Your task to perform on an android device: Go to calendar. Show me events next week Image 0: 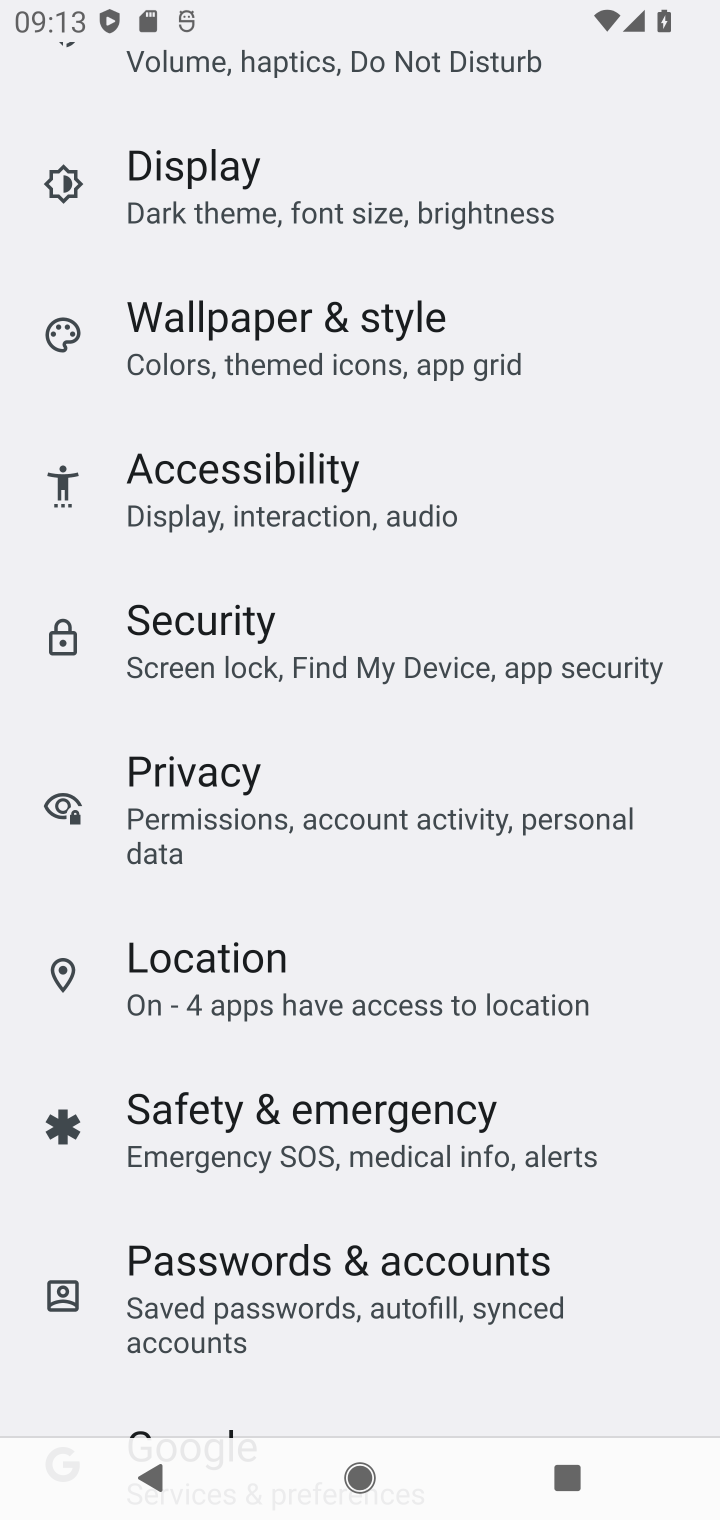
Step 0: press home button
Your task to perform on an android device: Go to calendar. Show me events next week Image 1: 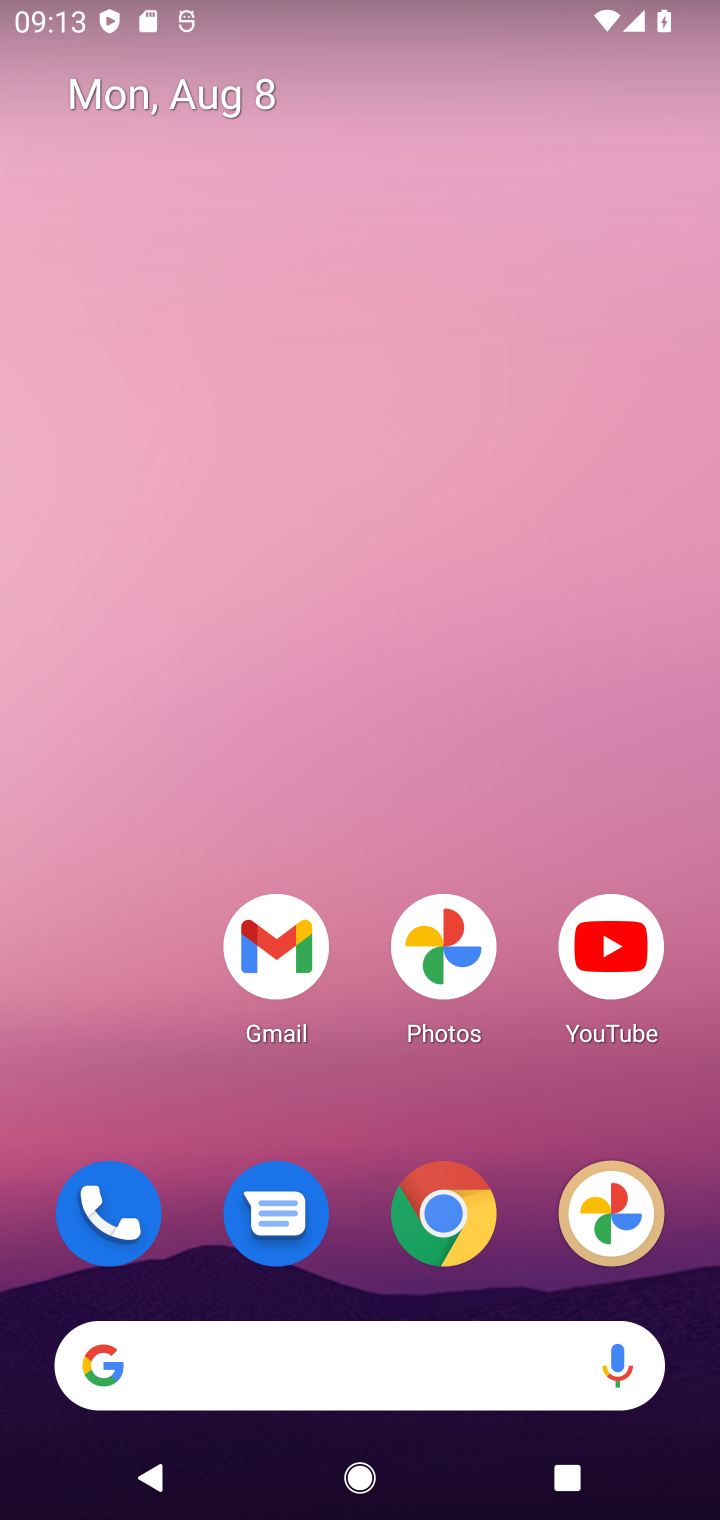
Step 1: drag from (347, 1141) to (456, 258)
Your task to perform on an android device: Go to calendar. Show me events next week Image 2: 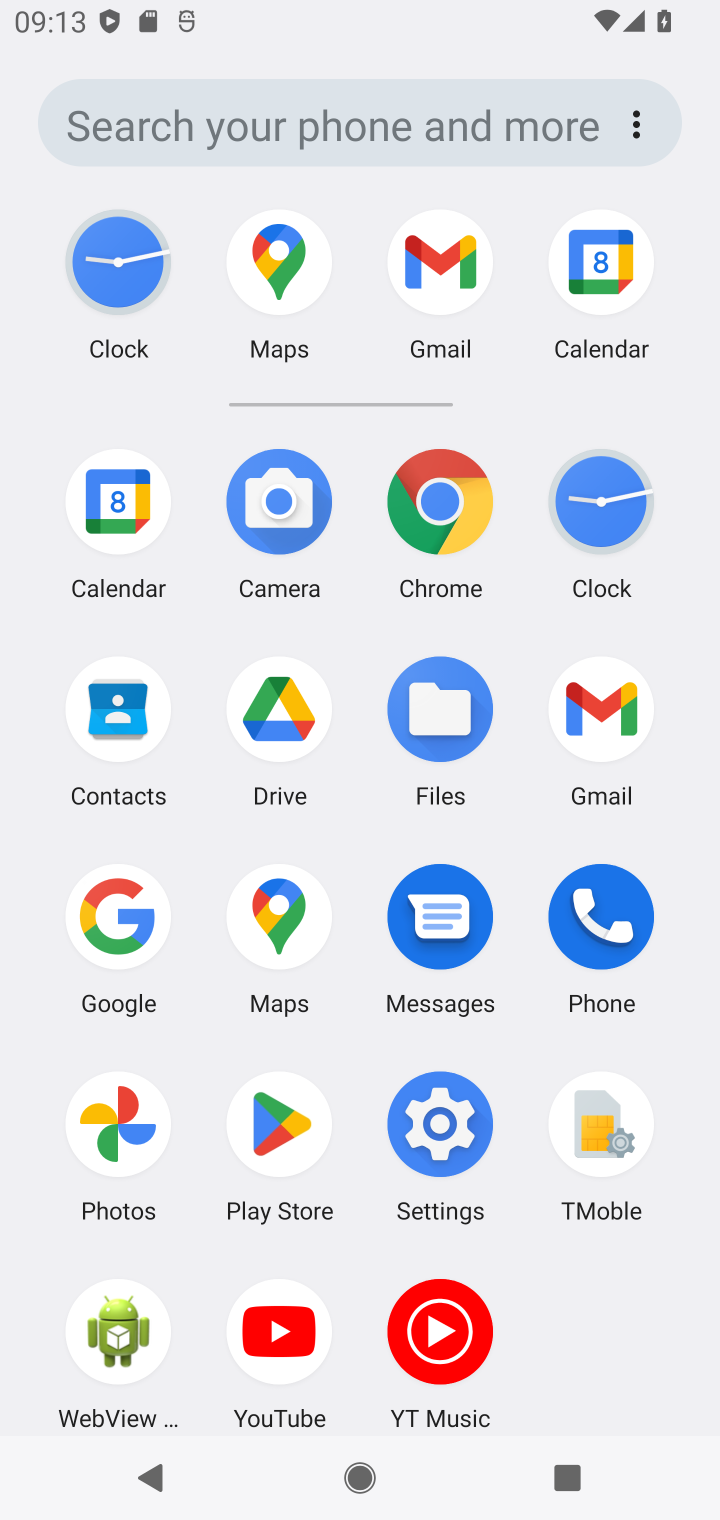
Step 2: click (113, 564)
Your task to perform on an android device: Go to calendar. Show me events next week Image 3: 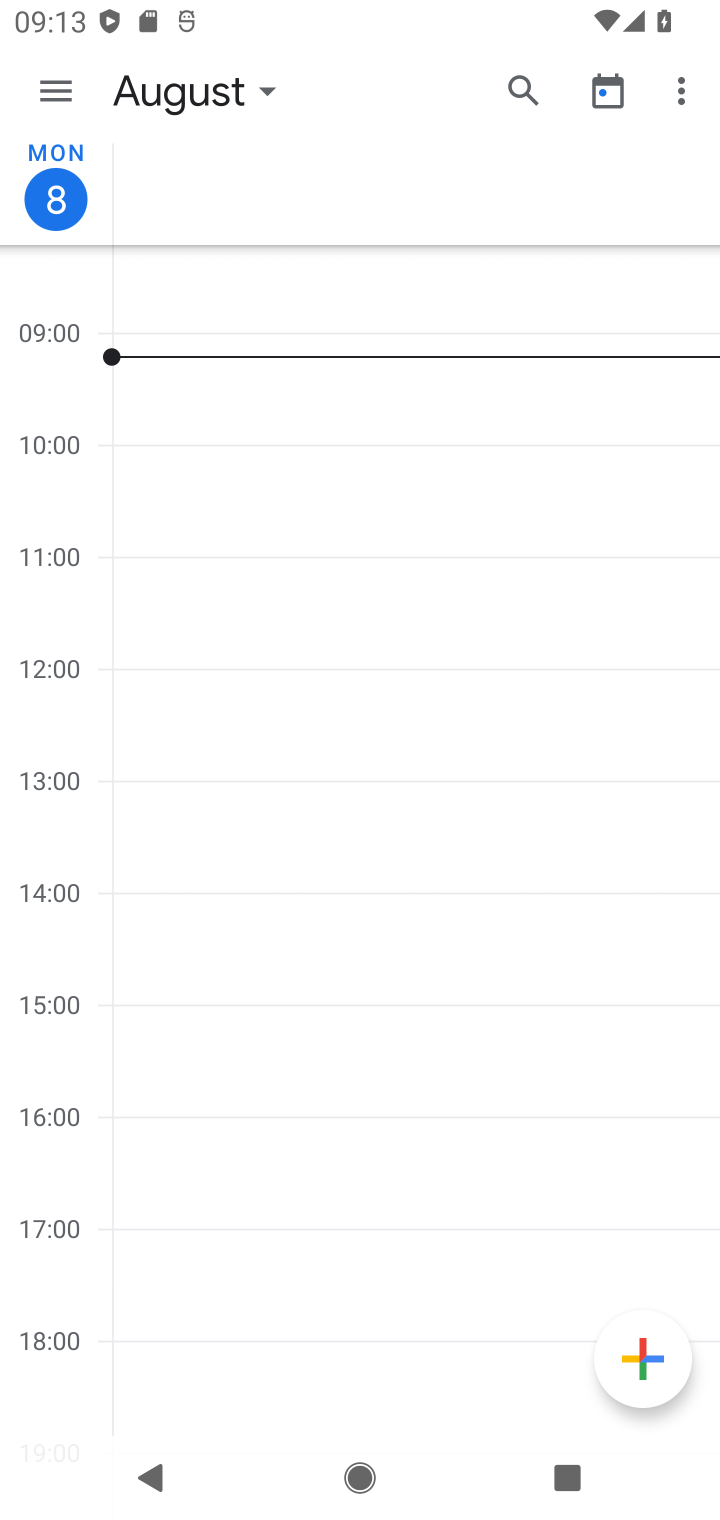
Step 3: click (86, 108)
Your task to perform on an android device: Go to calendar. Show me events next week Image 4: 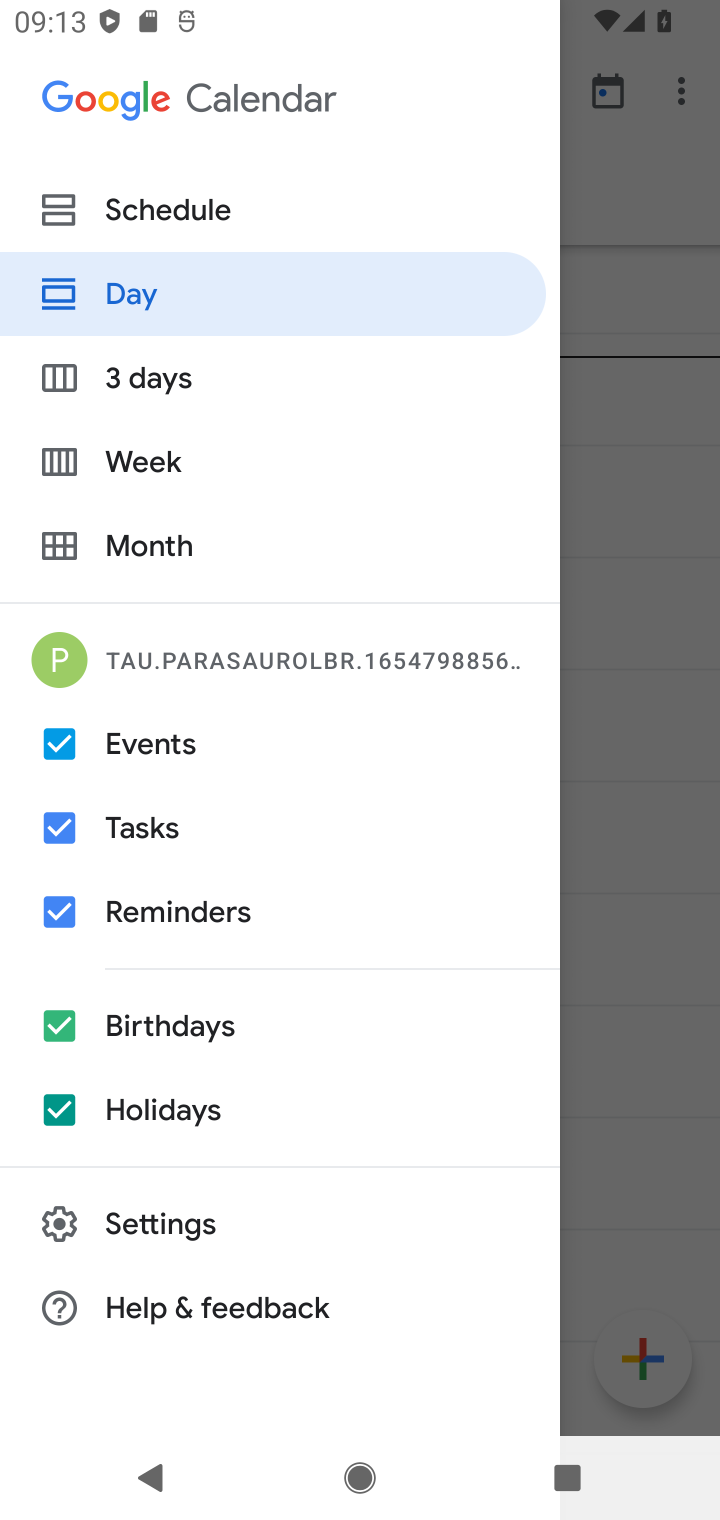
Step 4: click (211, 466)
Your task to perform on an android device: Go to calendar. Show me events next week Image 5: 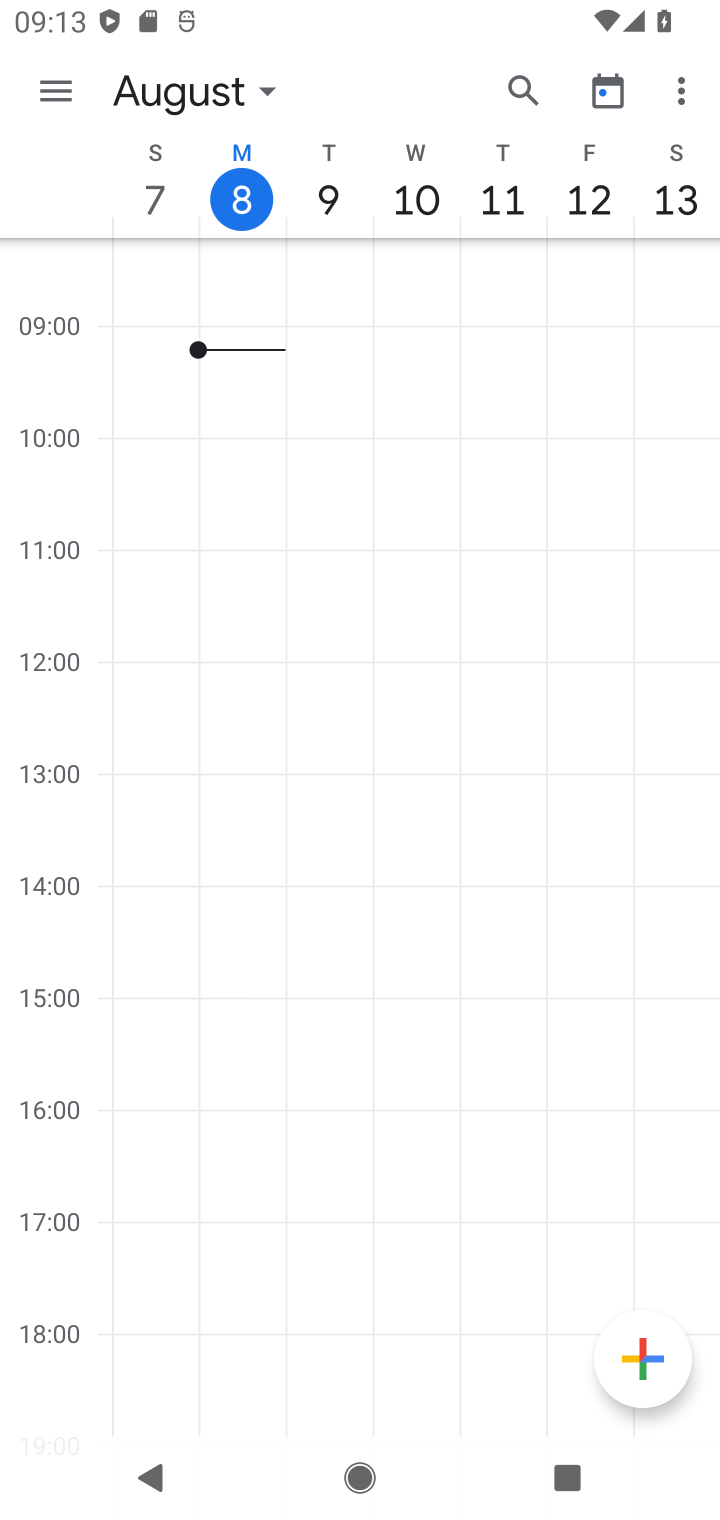
Step 5: click (214, 98)
Your task to perform on an android device: Go to calendar. Show me events next week Image 6: 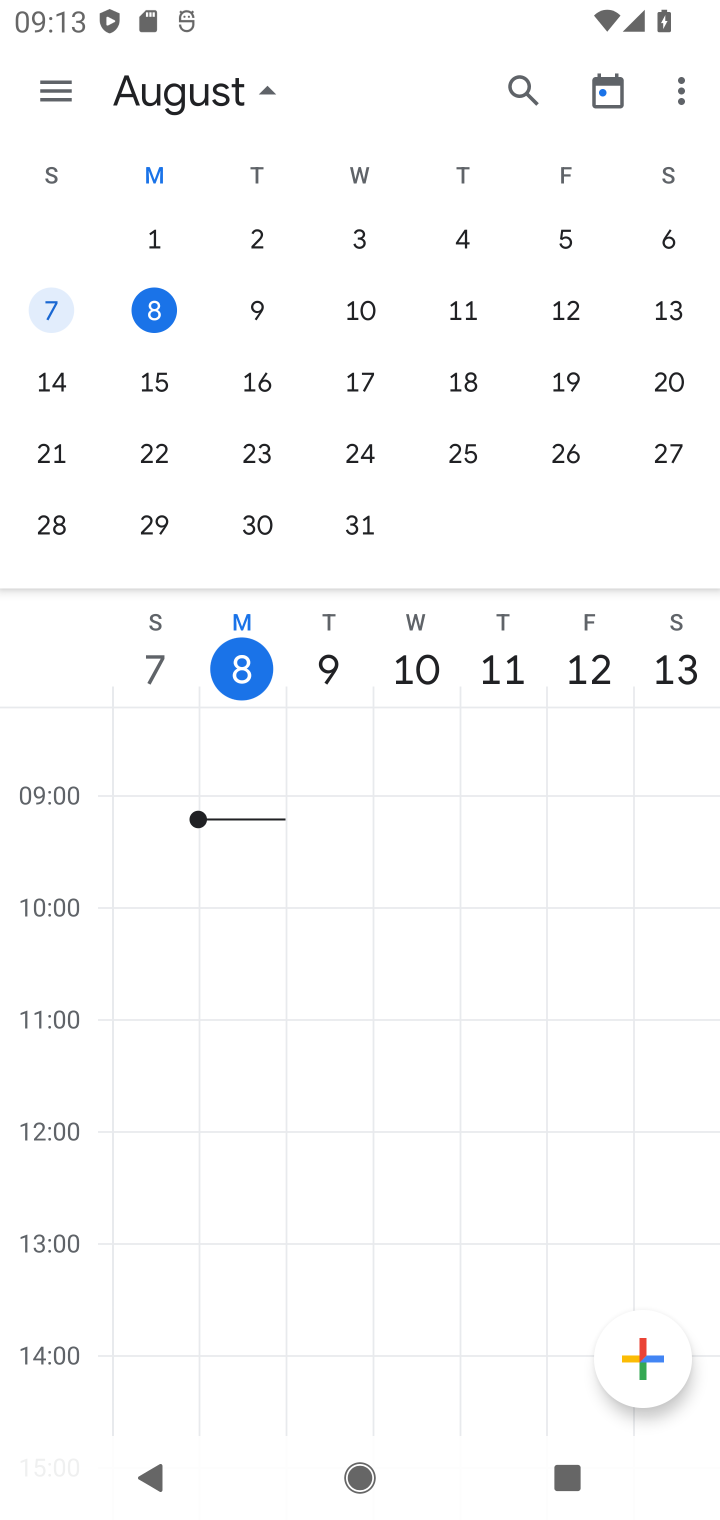
Step 6: click (65, 390)
Your task to perform on an android device: Go to calendar. Show me events next week Image 7: 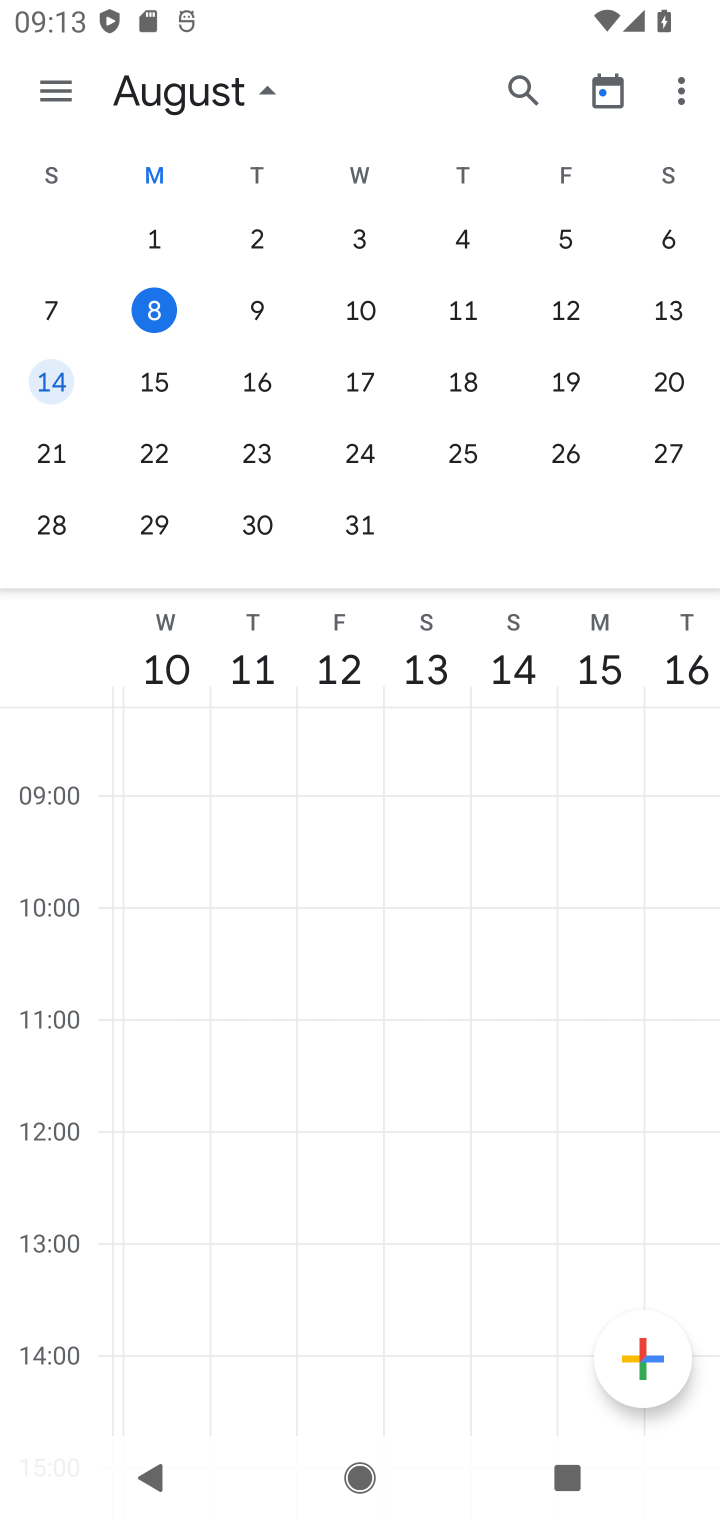
Step 7: click (260, 91)
Your task to perform on an android device: Go to calendar. Show me events next week Image 8: 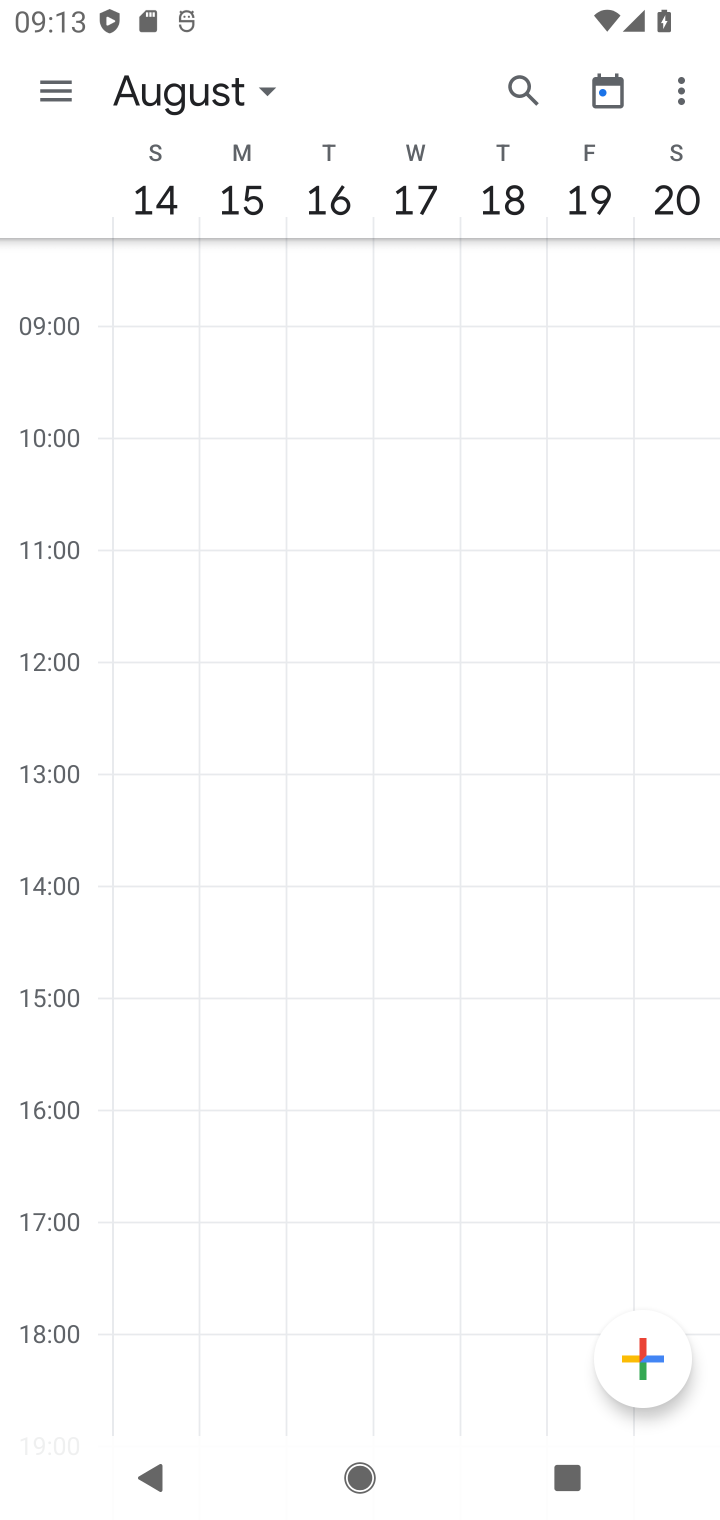
Step 8: task complete